Your task to perform on an android device: Search for hotels in Mexico city Image 0: 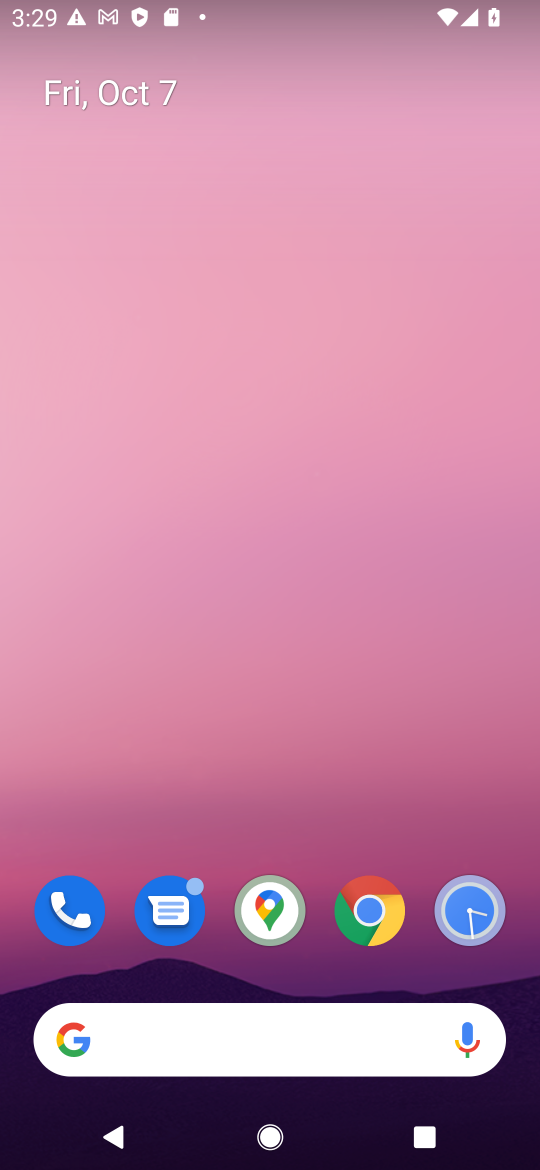
Step 0: drag from (247, 953) to (222, 265)
Your task to perform on an android device: Search for hotels in Mexico city Image 1: 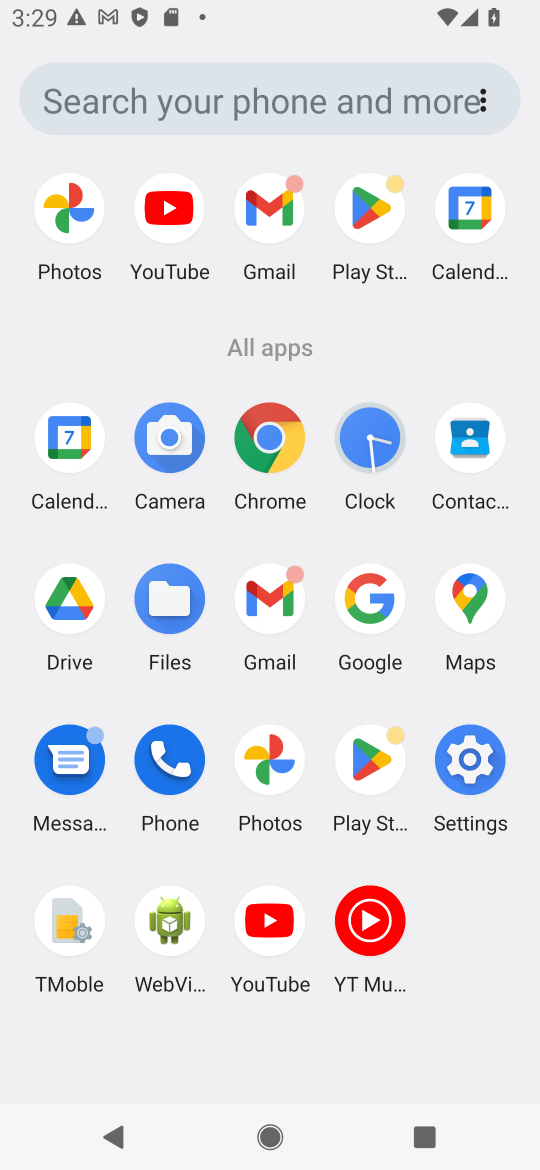
Step 1: click (480, 616)
Your task to perform on an android device: Search for hotels in Mexico city Image 2: 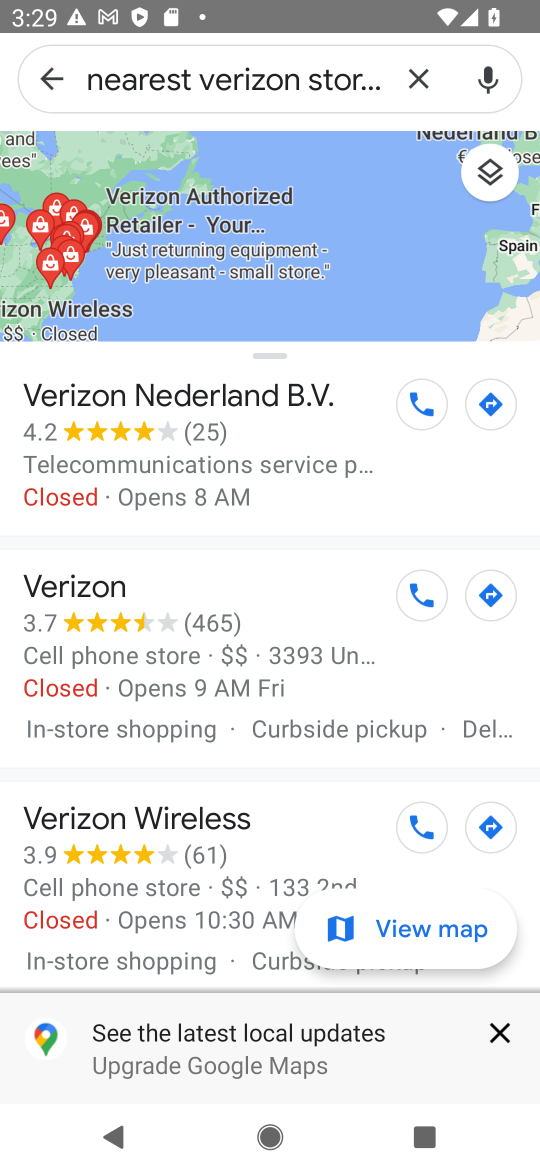
Step 2: click (59, 84)
Your task to perform on an android device: Search for hotels in Mexico city Image 3: 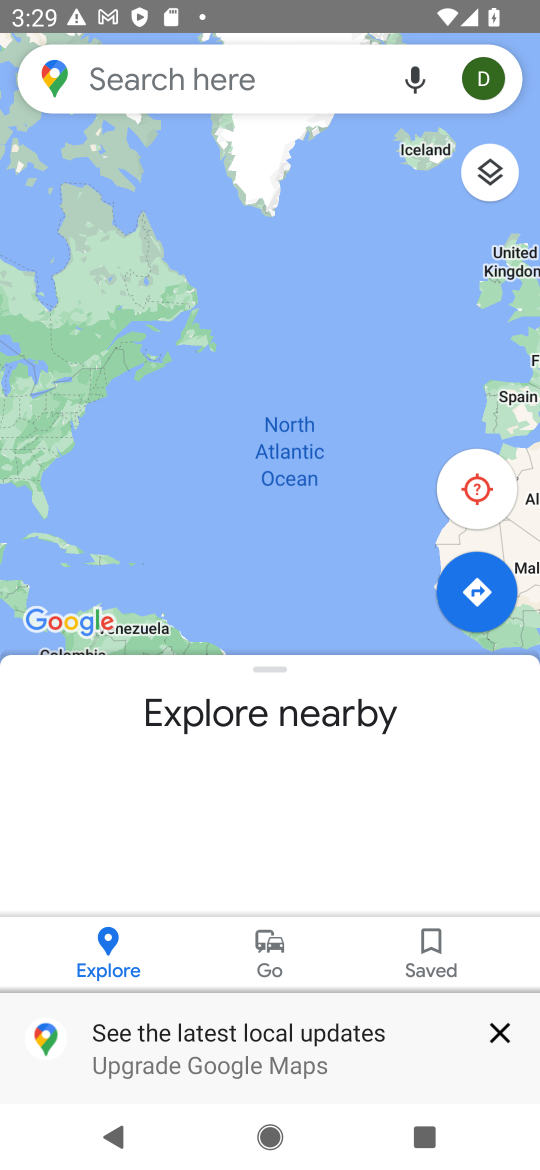
Step 3: click (171, 84)
Your task to perform on an android device: Search for hotels in Mexico city Image 4: 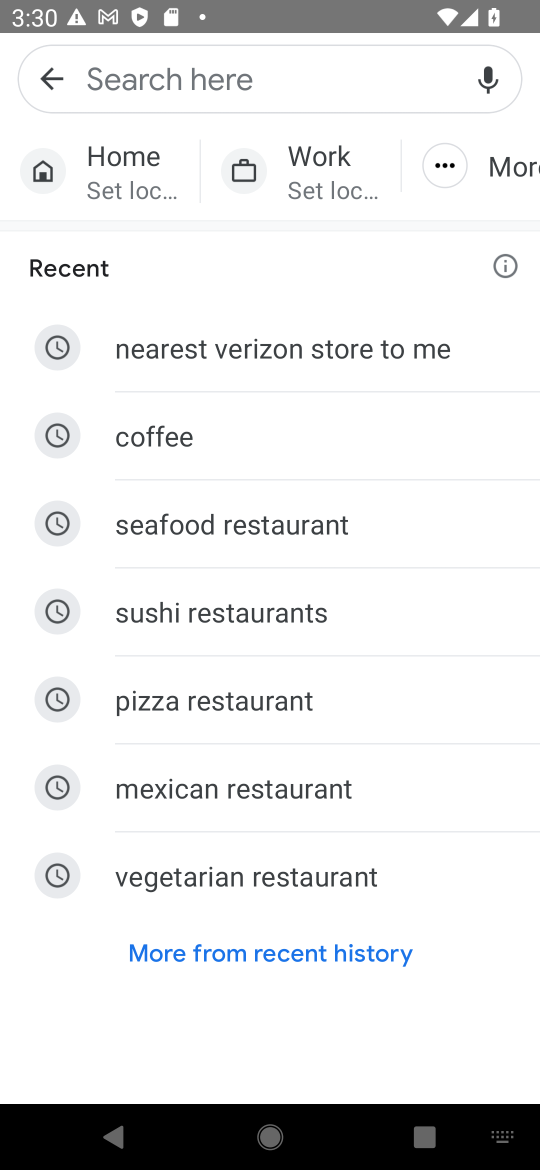
Step 4: type "hotels in Mexico city"
Your task to perform on an android device: Search for hotels in Mexico city Image 5: 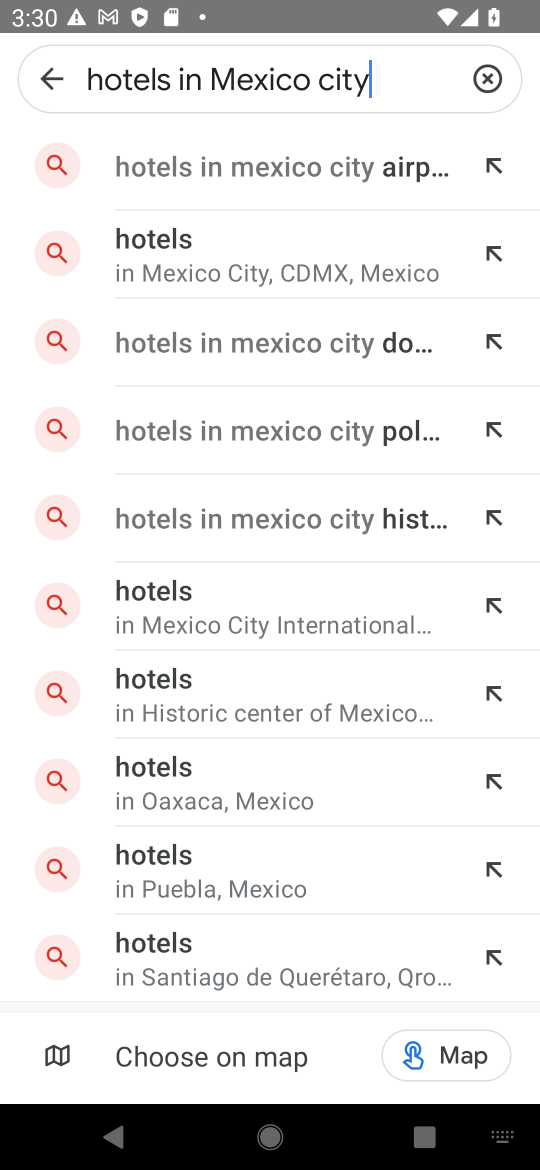
Step 5: click (299, 176)
Your task to perform on an android device: Search for hotels in Mexico city Image 6: 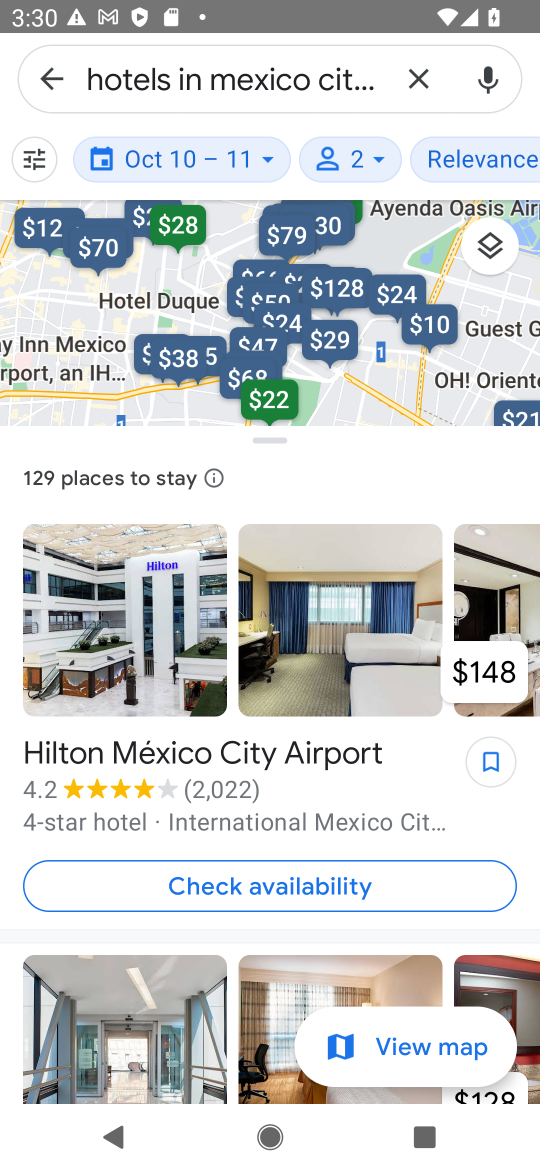
Step 6: drag from (303, 984) to (323, 382)
Your task to perform on an android device: Search for hotels in Mexico city Image 7: 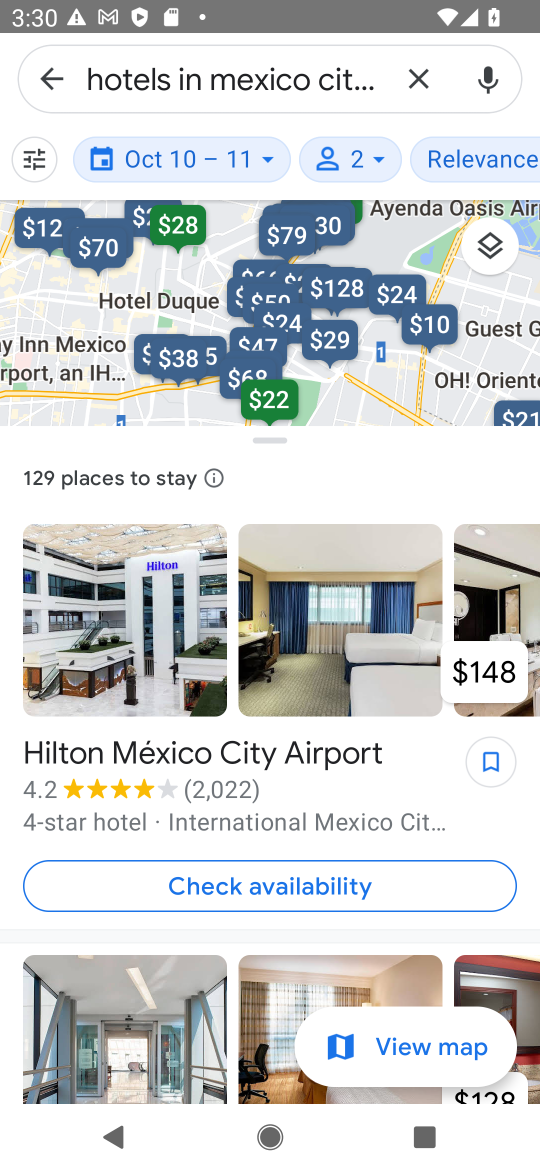
Step 7: click (237, 392)
Your task to perform on an android device: Search for hotels in Mexico city Image 8: 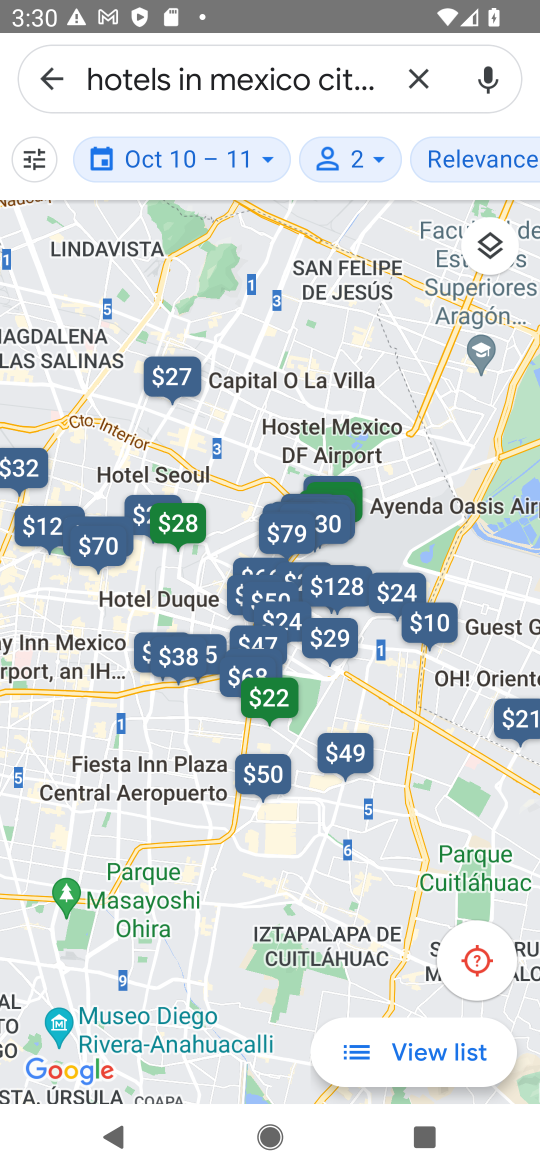
Step 8: task complete